Your task to perform on an android device: Go to Wikipedia Image 0: 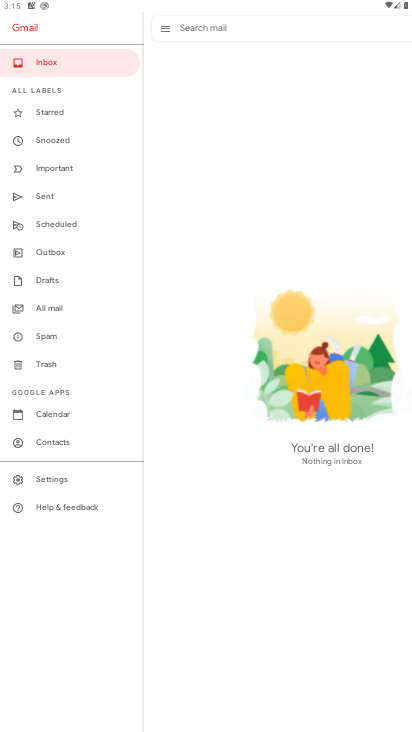
Step 0: press home button
Your task to perform on an android device: Go to Wikipedia Image 1: 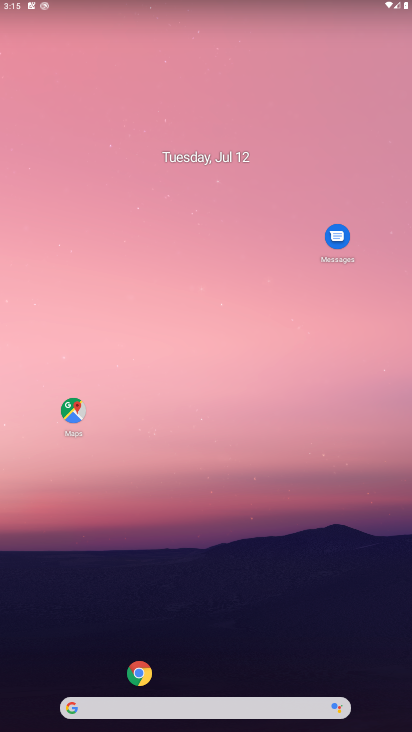
Step 1: click (104, 710)
Your task to perform on an android device: Go to Wikipedia Image 2: 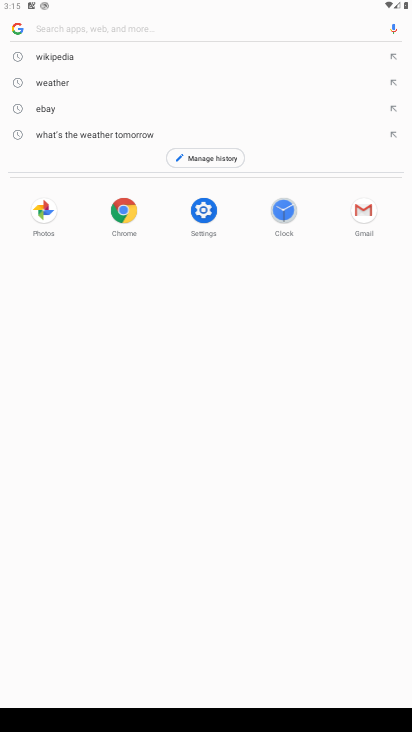
Step 2: click (71, 49)
Your task to perform on an android device: Go to Wikipedia Image 3: 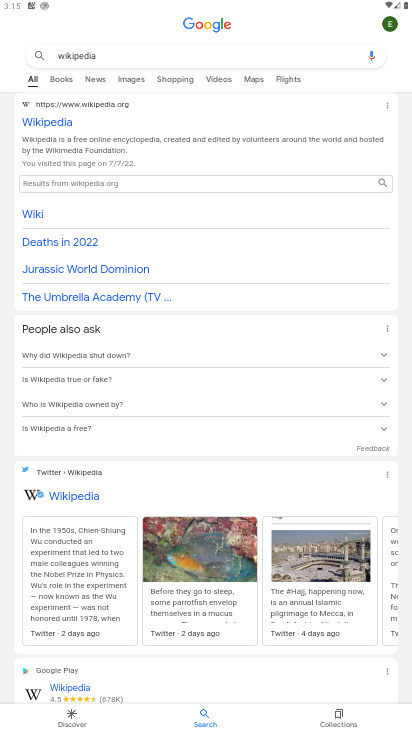
Step 3: task complete